Your task to perform on an android device: Search for pizza restaurants on Maps Image 0: 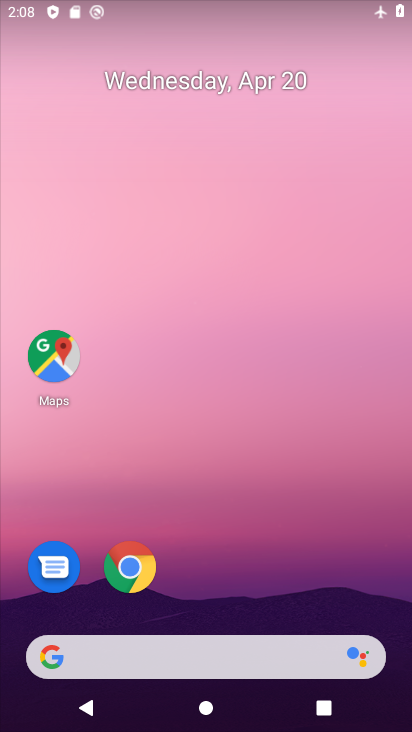
Step 0: click (42, 356)
Your task to perform on an android device: Search for pizza restaurants on Maps Image 1: 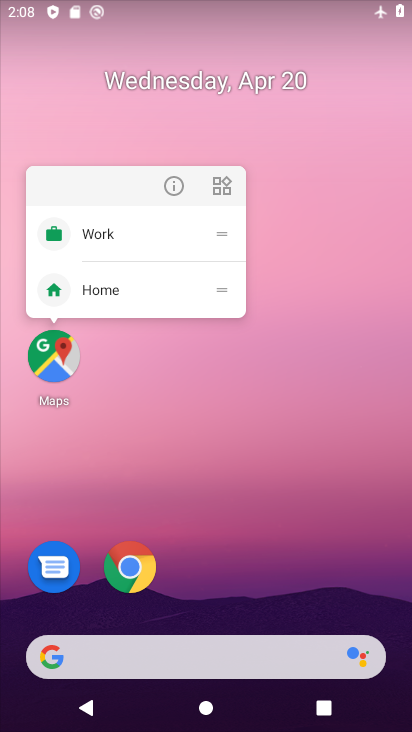
Step 1: click (42, 356)
Your task to perform on an android device: Search for pizza restaurants on Maps Image 2: 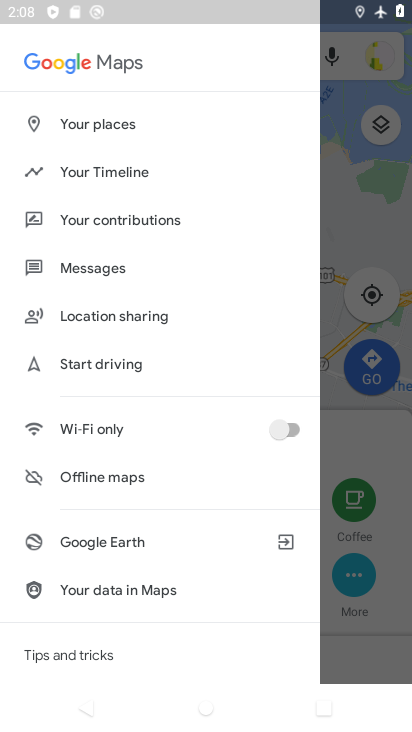
Step 2: click (343, 59)
Your task to perform on an android device: Search for pizza restaurants on Maps Image 3: 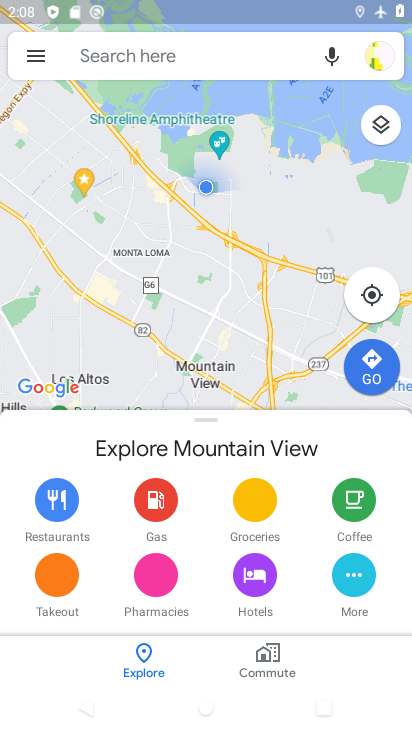
Step 3: click (249, 68)
Your task to perform on an android device: Search for pizza restaurants on Maps Image 4: 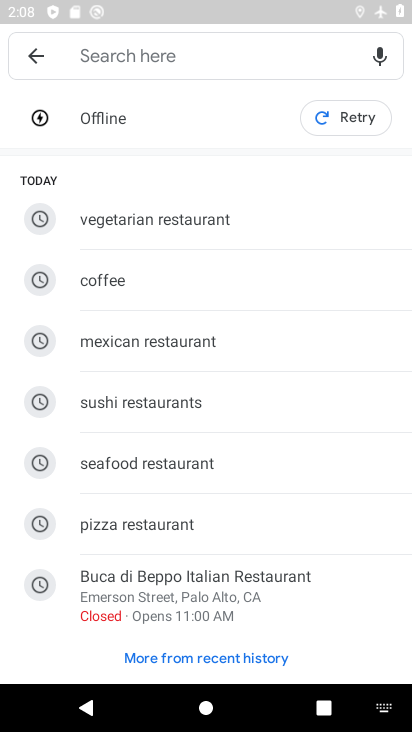
Step 4: click (141, 534)
Your task to perform on an android device: Search for pizza restaurants on Maps Image 5: 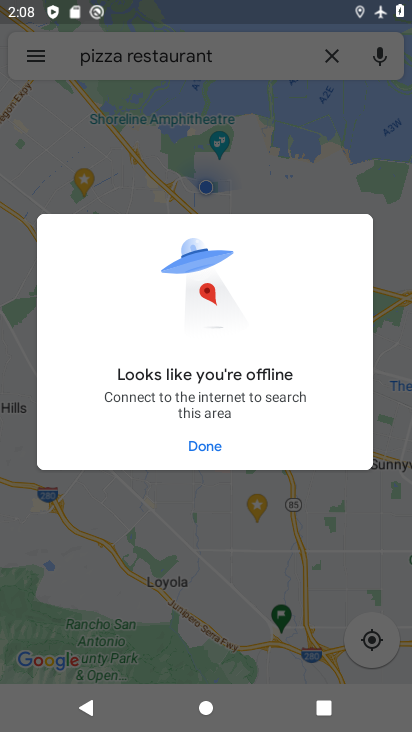
Step 5: task complete